Your task to perform on an android device: Open Reddit.com Image 0: 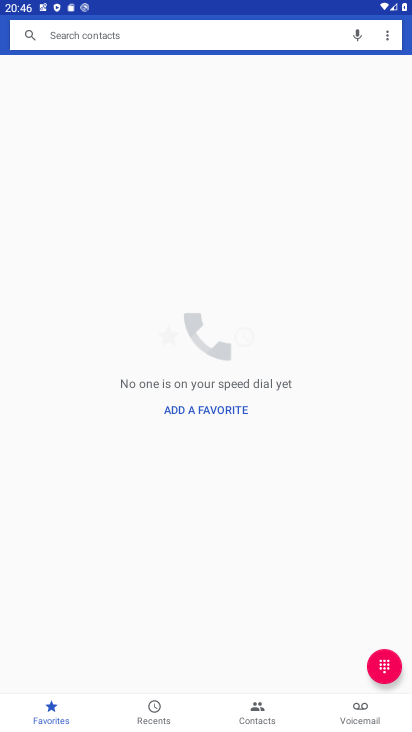
Step 0: click (143, 658)
Your task to perform on an android device: Open Reddit.com Image 1: 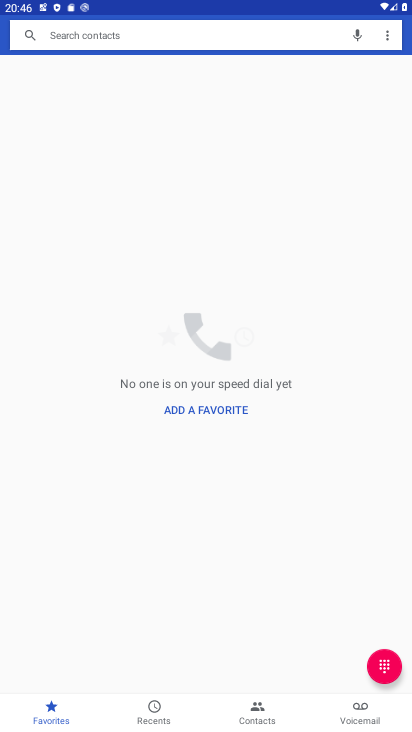
Step 1: press home button
Your task to perform on an android device: Open Reddit.com Image 2: 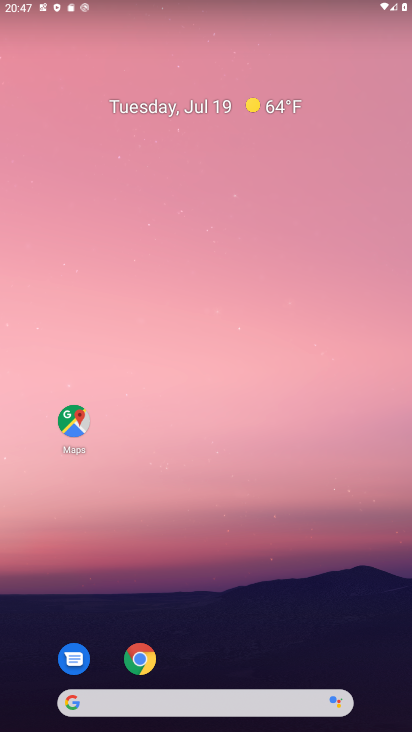
Step 2: click (147, 659)
Your task to perform on an android device: Open Reddit.com Image 3: 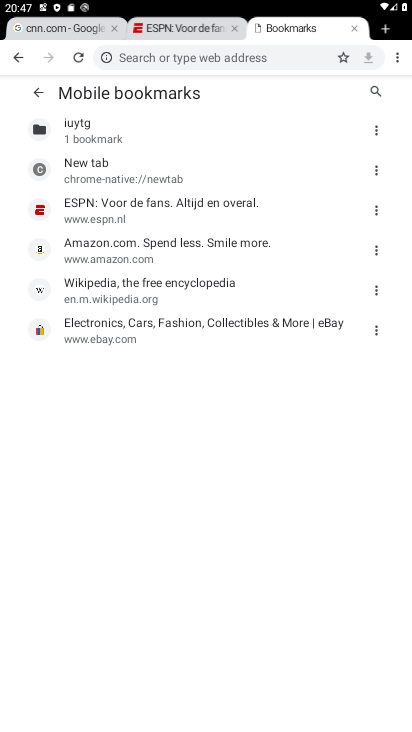
Step 3: click (179, 52)
Your task to perform on an android device: Open Reddit.com Image 4: 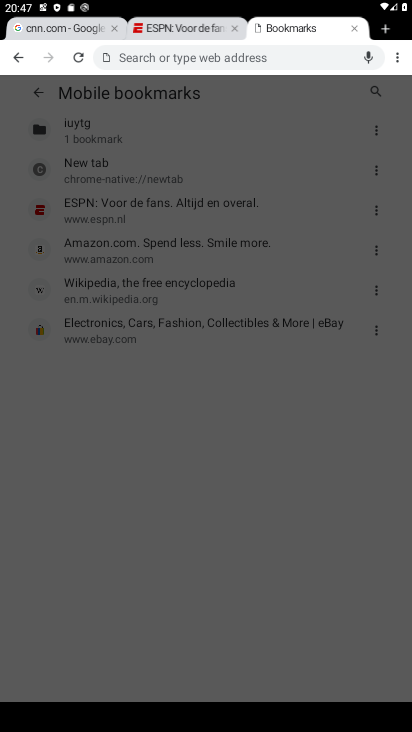
Step 4: type "reddit"
Your task to perform on an android device: Open Reddit.com Image 5: 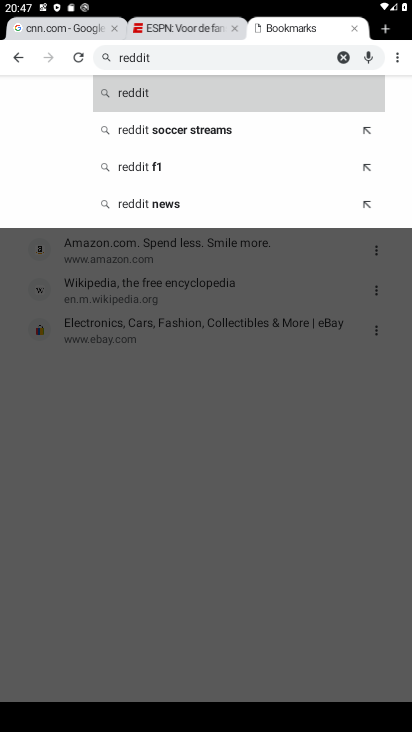
Step 5: click (326, 79)
Your task to perform on an android device: Open Reddit.com Image 6: 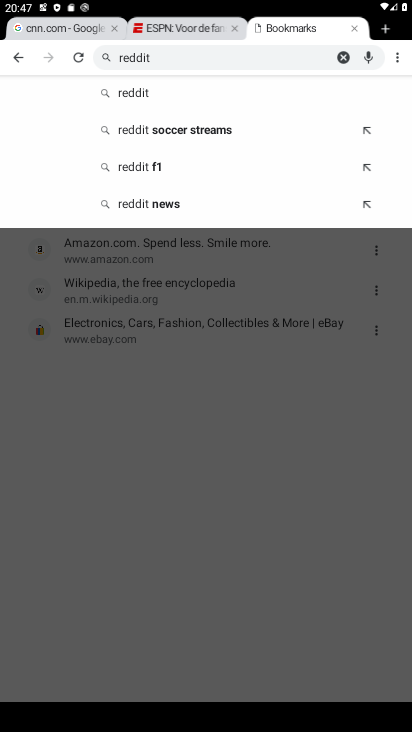
Step 6: click (207, 98)
Your task to perform on an android device: Open Reddit.com Image 7: 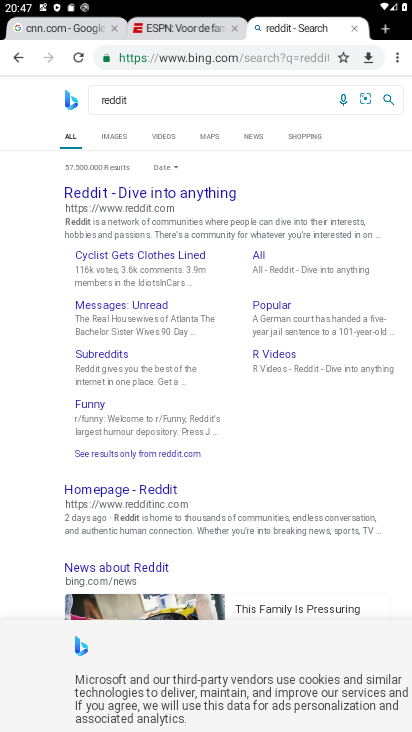
Step 7: click (115, 197)
Your task to perform on an android device: Open Reddit.com Image 8: 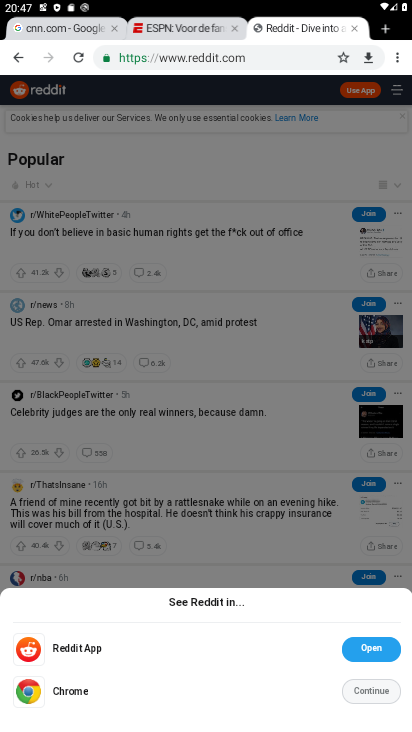
Step 8: task complete